Your task to perform on an android device: When is my next appointment? Image 0: 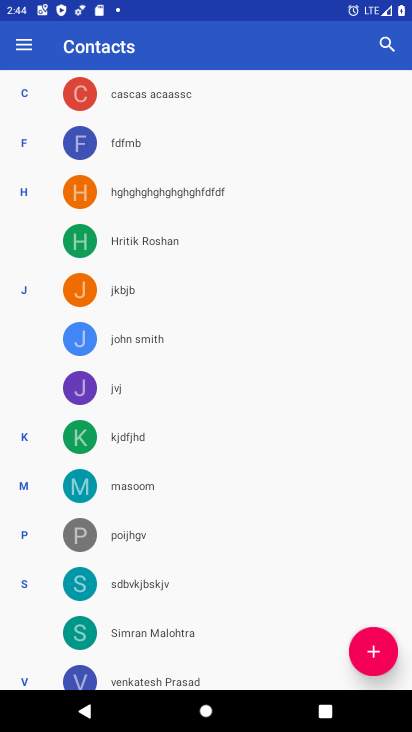
Step 0: press home button
Your task to perform on an android device: When is my next appointment? Image 1: 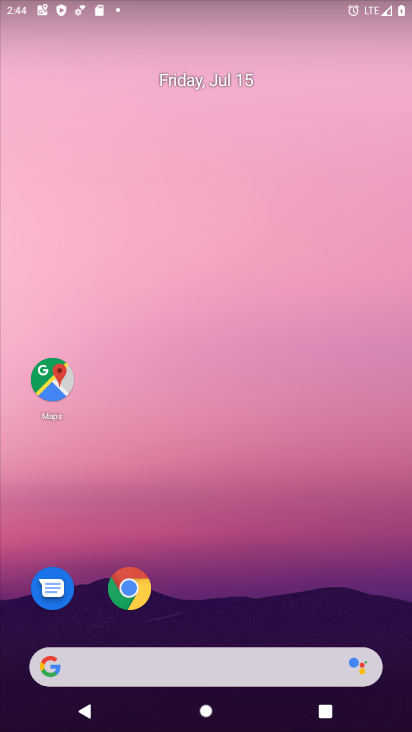
Step 1: drag from (197, 671) to (301, 155)
Your task to perform on an android device: When is my next appointment? Image 2: 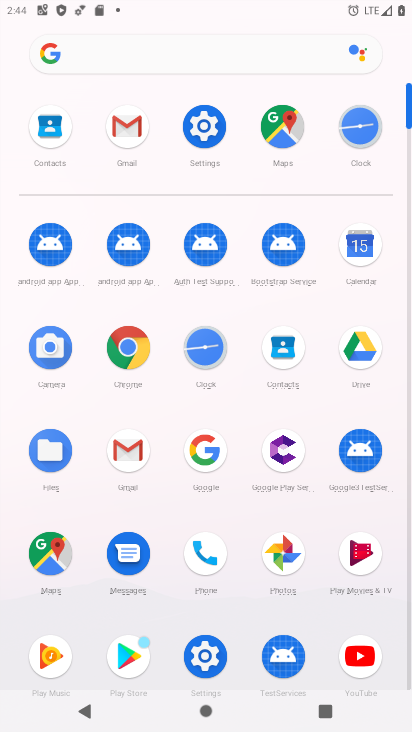
Step 2: click (361, 244)
Your task to perform on an android device: When is my next appointment? Image 3: 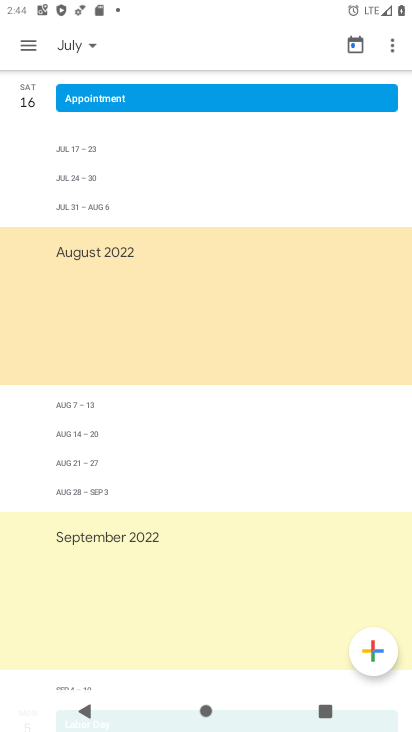
Step 3: click (349, 46)
Your task to perform on an android device: When is my next appointment? Image 4: 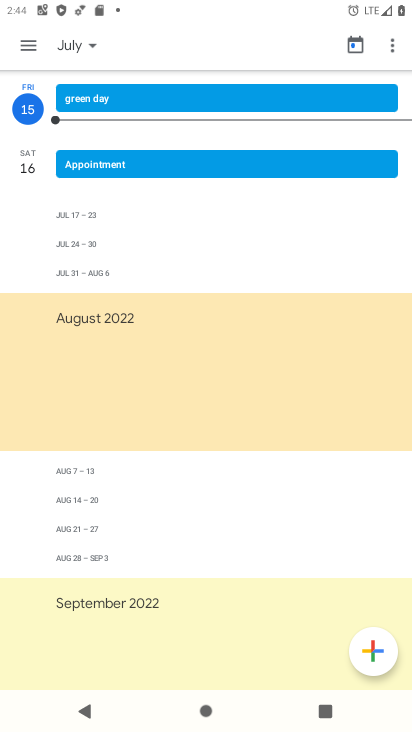
Step 4: click (88, 45)
Your task to perform on an android device: When is my next appointment? Image 5: 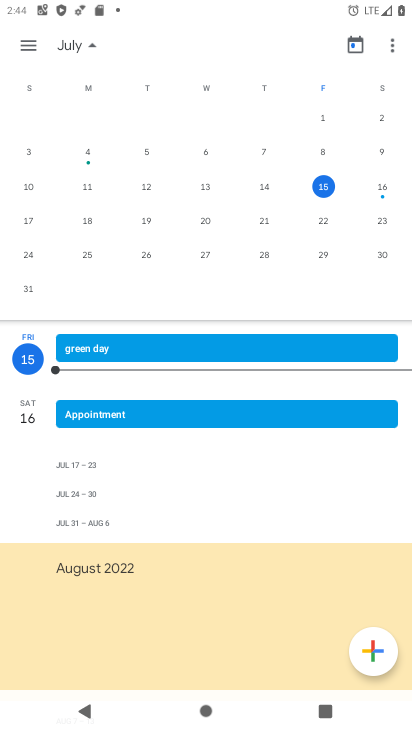
Step 5: click (380, 185)
Your task to perform on an android device: When is my next appointment? Image 6: 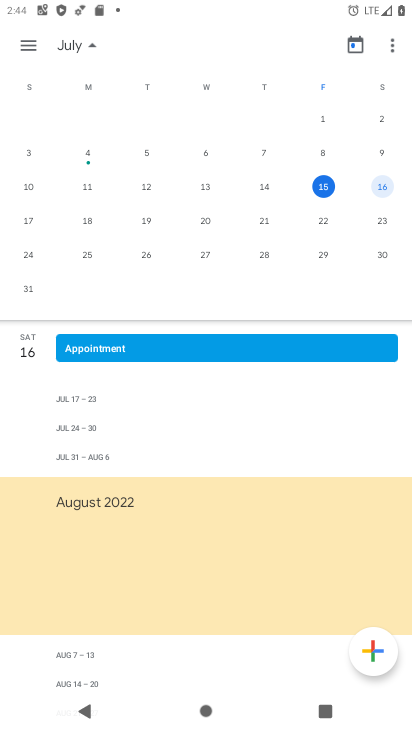
Step 6: click (31, 49)
Your task to perform on an android device: When is my next appointment? Image 7: 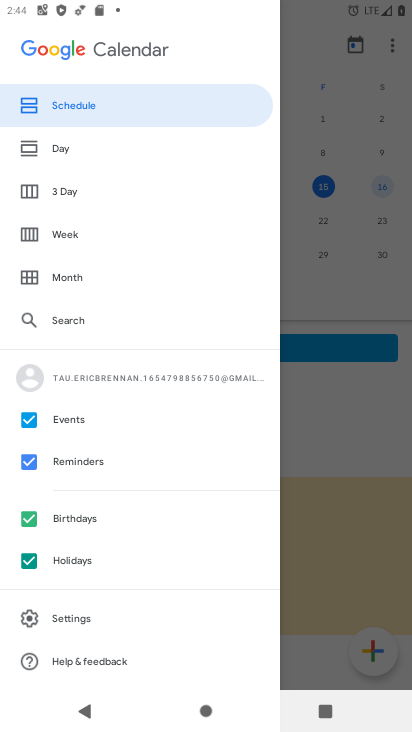
Step 7: click (70, 103)
Your task to perform on an android device: When is my next appointment? Image 8: 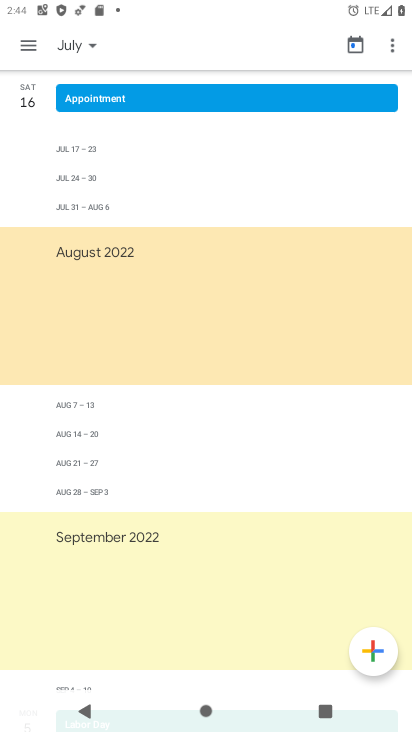
Step 8: task complete